Your task to perform on an android device: change your default location settings in chrome Image 0: 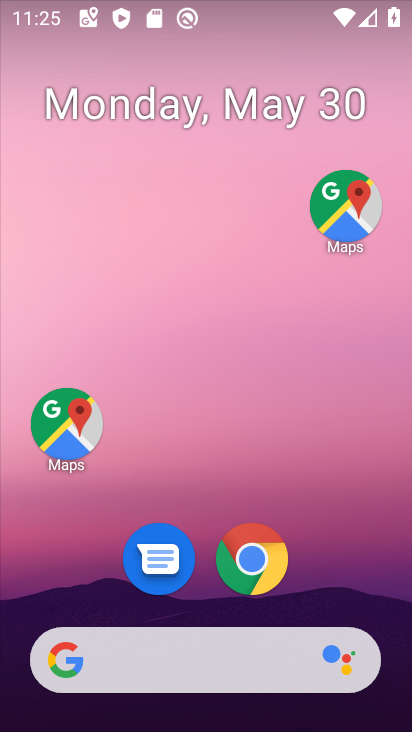
Step 0: click (252, 560)
Your task to perform on an android device: change your default location settings in chrome Image 1: 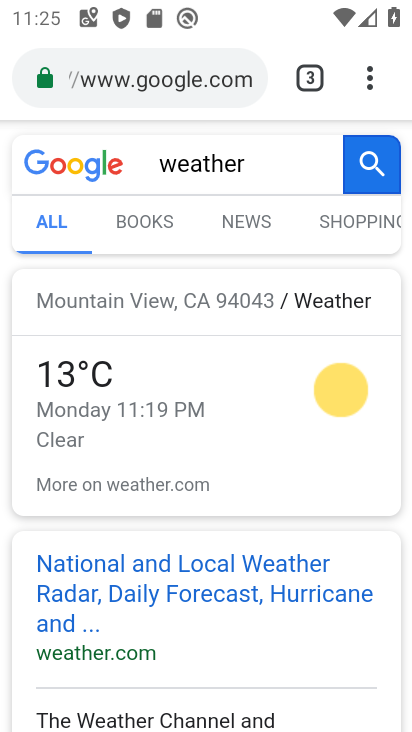
Step 1: click (381, 73)
Your task to perform on an android device: change your default location settings in chrome Image 2: 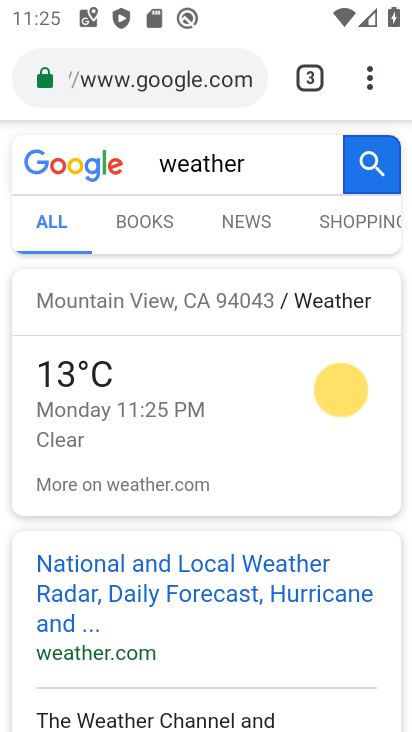
Step 2: drag from (366, 74) to (153, 612)
Your task to perform on an android device: change your default location settings in chrome Image 3: 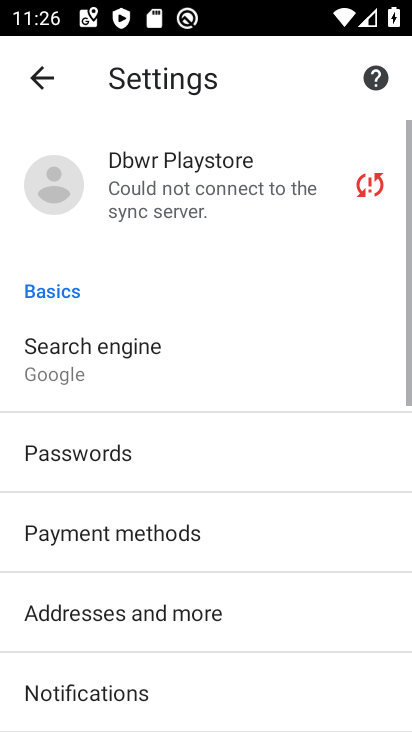
Step 3: drag from (258, 644) to (322, 142)
Your task to perform on an android device: change your default location settings in chrome Image 4: 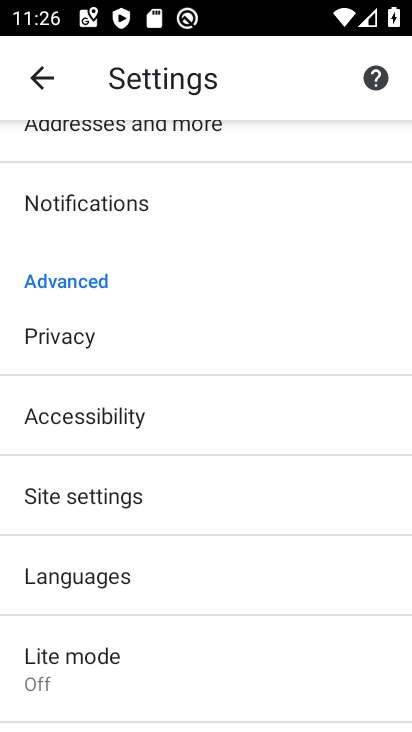
Step 4: click (120, 499)
Your task to perform on an android device: change your default location settings in chrome Image 5: 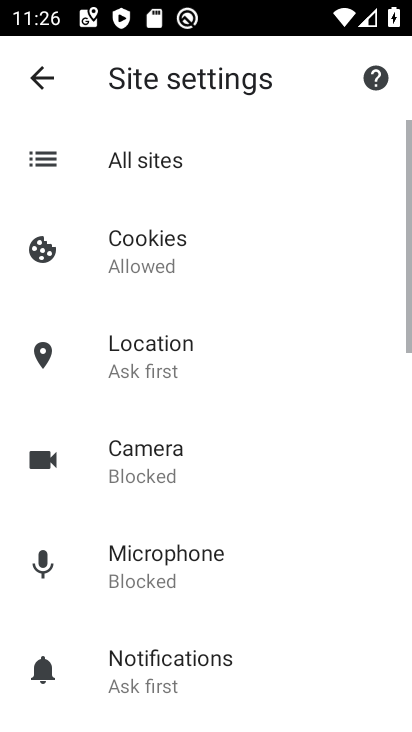
Step 5: click (148, 355)
Your task to perform on an android device: change your default location settings in chrome Image 6: 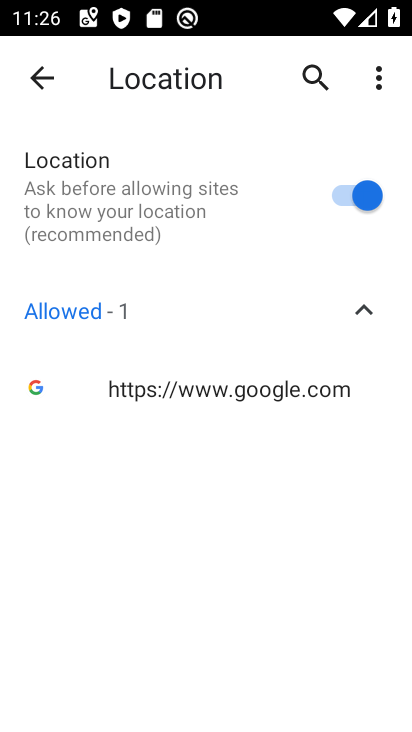
Step 6: click (348, 191)
Your task to perform on an android device: change your default location settings in chrome Image 7: 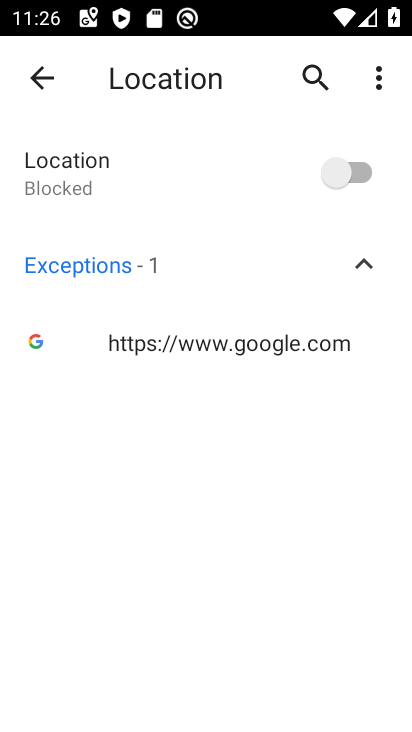
Step 7: task complete